Your task to perform on an android device: Open settings on Google Maps Image 0: 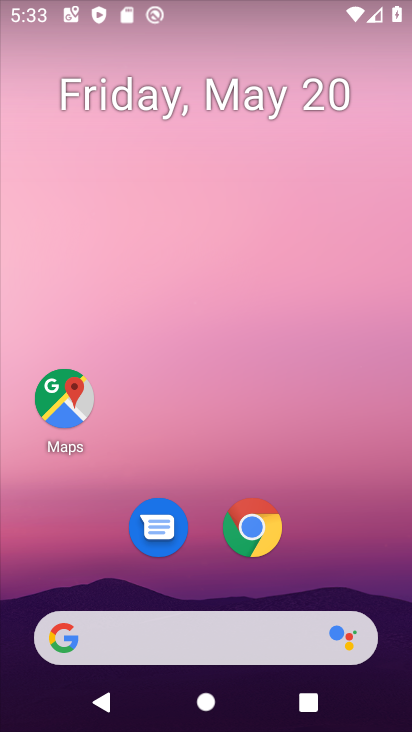
Step 0: drag from (187, 649) to (170, 183)
Your task to perform on an android device: Open settings on Google Maps Image 1: 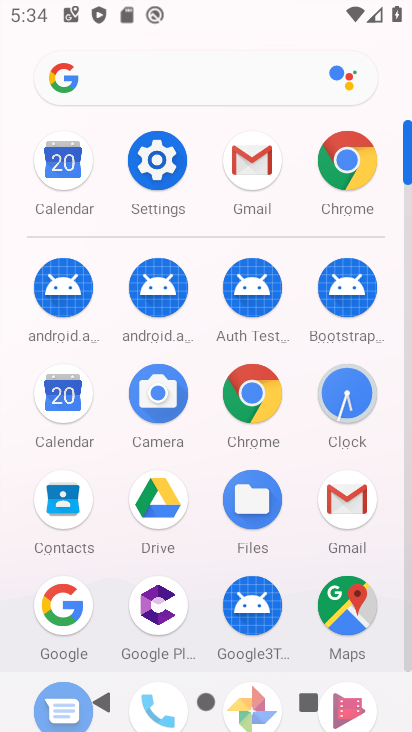
Step 1: click (359, 615)
Your task to perform on an android device: Open settings on Google Maps Image 2: 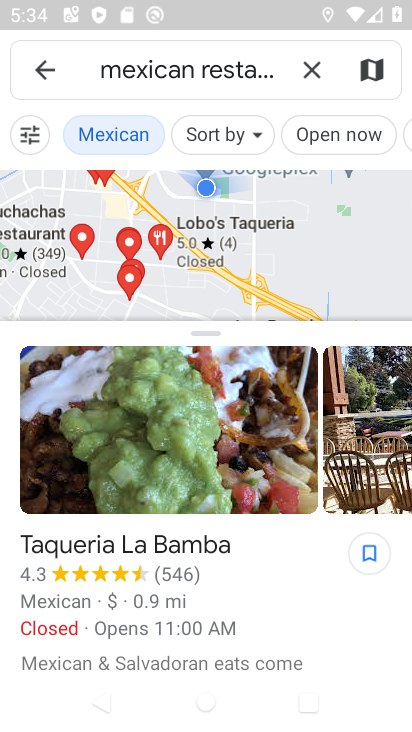
Step 2: press back button
Your task to perform on an android device: Open settings on Google Maps Image 3: 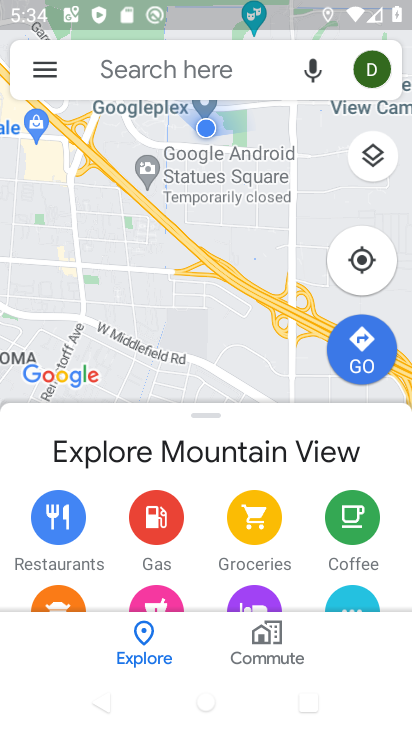
Step 3: click (45, 76)
Your task to perform on an android device: Open settings on Google Maps Image 4: 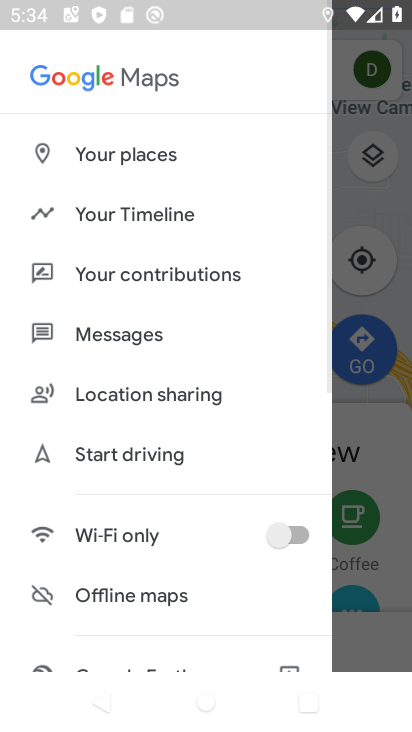
Step 4: click (123, 214)
Your task to perform on an android device: Open settings on Google Maps Image 5: 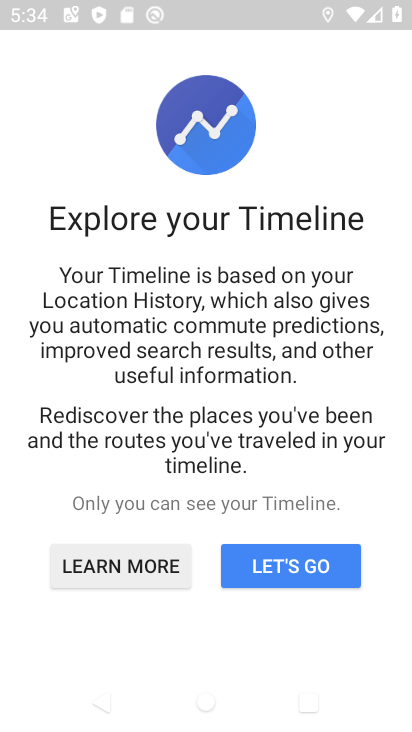
Step 5: click (275, 562)
Your task to perform on an android device: Open settings on Google Maps Image 6: 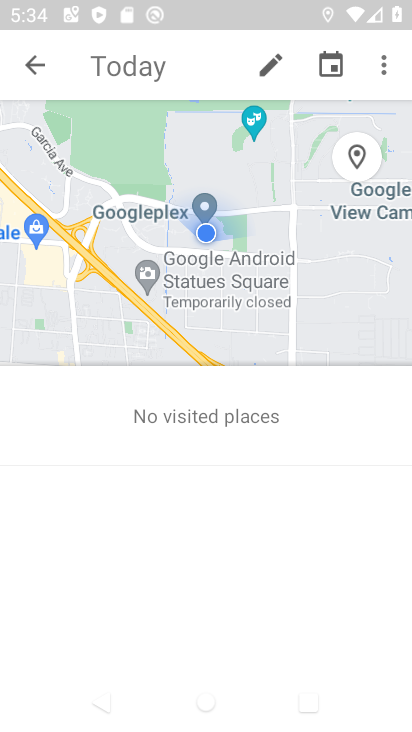
Step 6: task complete